Your task to perform on an android device: search for starred emails in the gmail app Image 0: 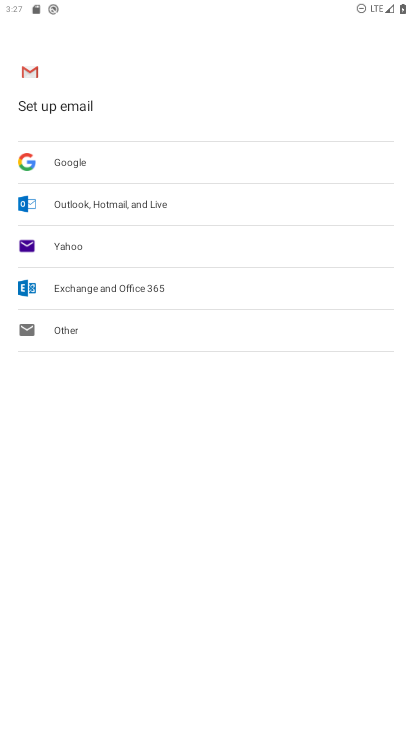
Step 0: press home button
Your task to perform on an android device: search for starred emails in the gmail app Image 1: 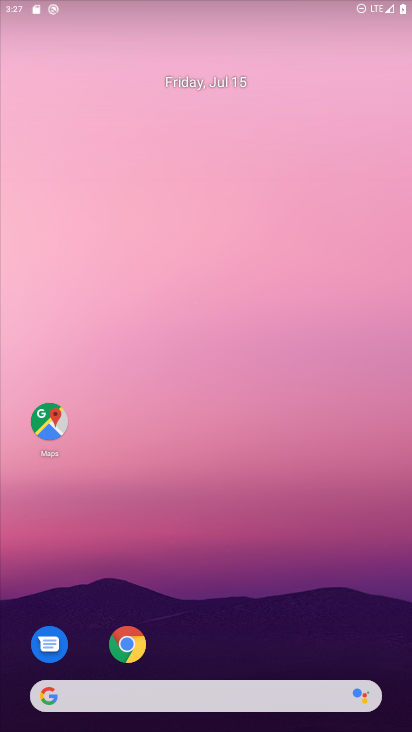
Step 1: drag from (11, 664) to (216, 112)
Your task to perform on an android device: search for starred emails in the gmail app Image 2: 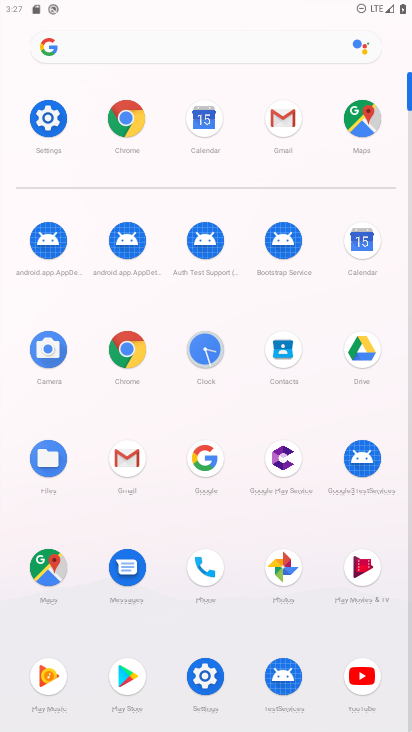
Step 2: click (282, 120)
Your task to perform on an android device: search for starred emails in the gmail app Image 3: 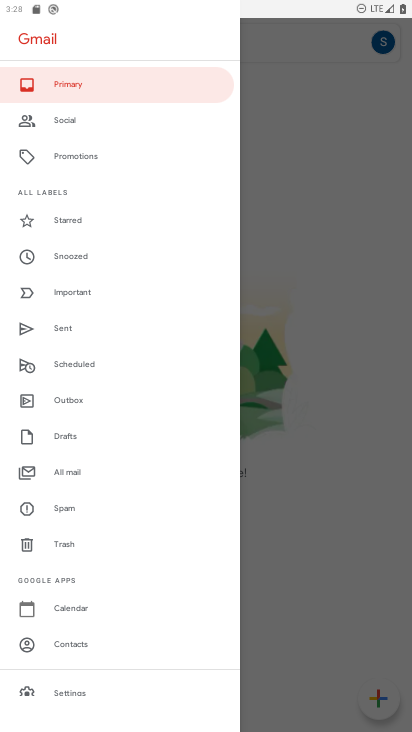
Step 3: click (85, 256)
Your task to perform on an android device: search for starred emails in the gmail app Image 4: 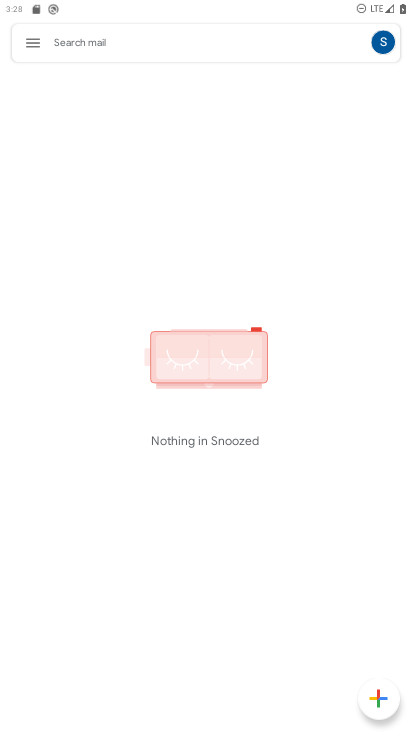
Step 4: task complete